Your task to perform on an android device: change alarm snooze length Image 0: 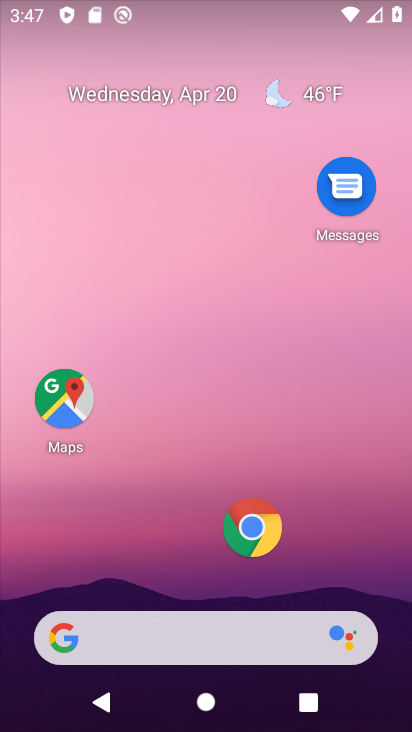
Step 0: drag from (201, 642) to (377, 46)
Your task to perform on an android device: change alarm snooze length Image 1: 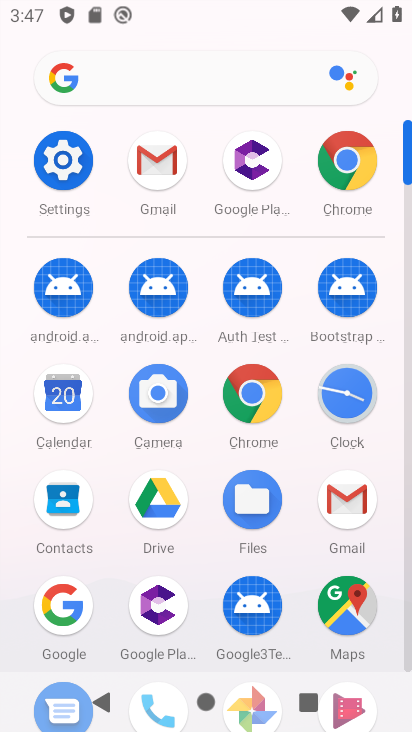
Step 1: click (336, 399)
Your task to perform on an android device: change alarm snooze length Image 2: 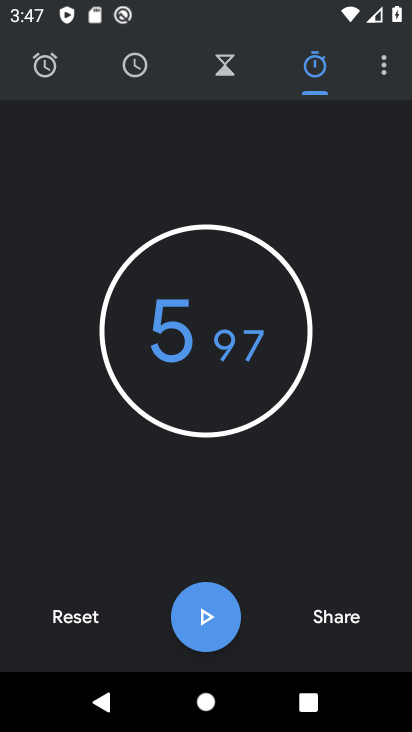
Step 2: click (385, 68)
Your task to perform on an android device: change alarm snooze length Image 3: 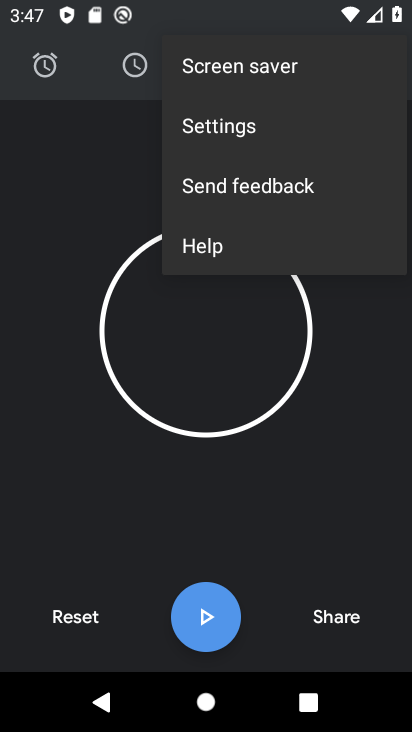
Step 3: click (229, 124)
Your task to perform on an android device: change alarm snooze length Image 4: 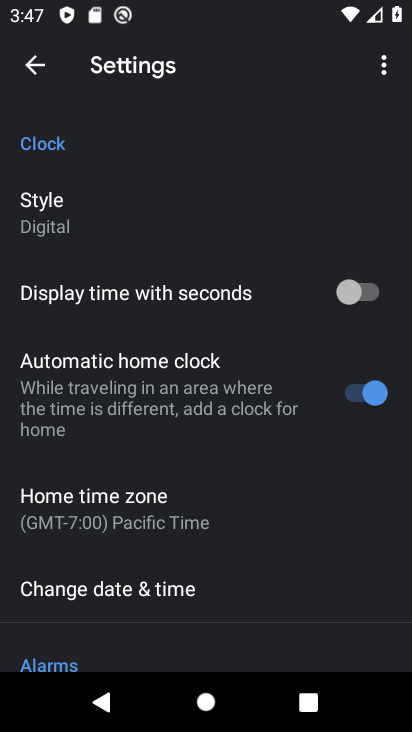
Step 4: drag from (215, 540) to (295, 220)
Your task to perform on an android device: change alarm snooze length Image 5: 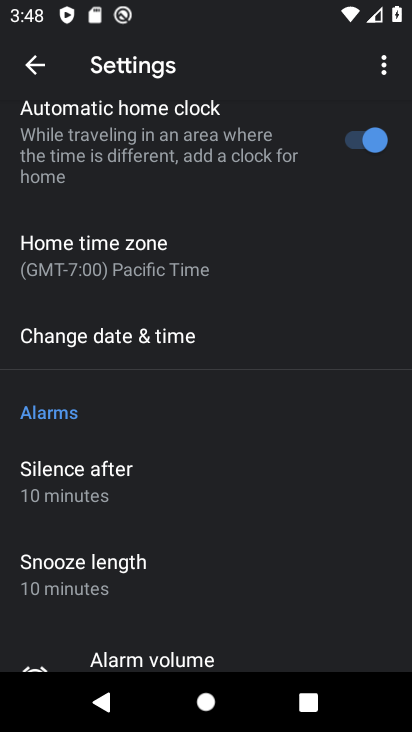
Step 5: click (100, 568)
Your task to perform on an android device: change alarm snooze length Image 6: 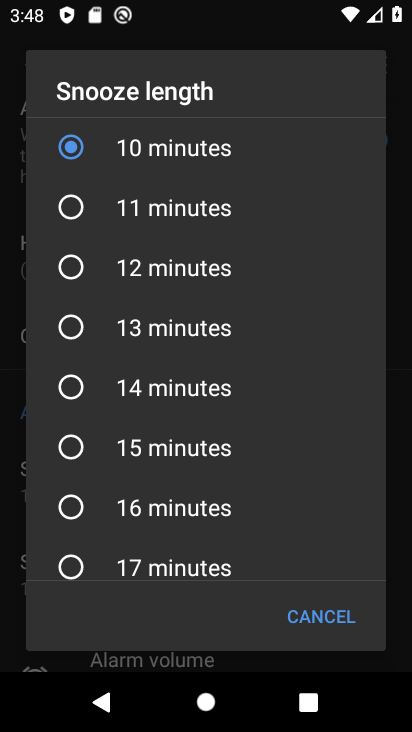
Step 6: click (73, 446)
Your task to perform on an android device: change alarm snooze length Image 7: 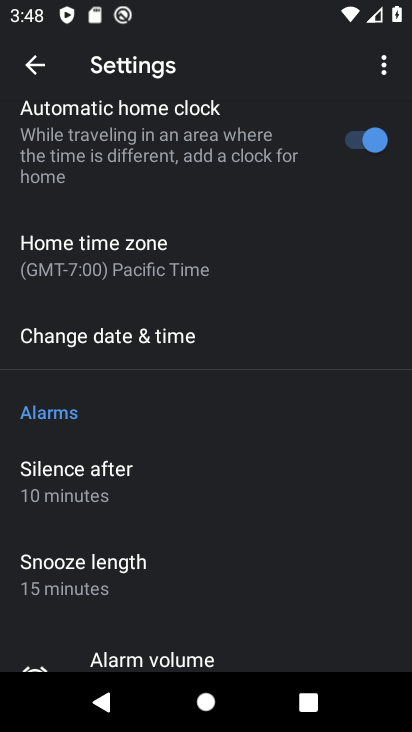
Step 7: task complete